Your task to perform on an android device: turn off sleep mode Image 0: 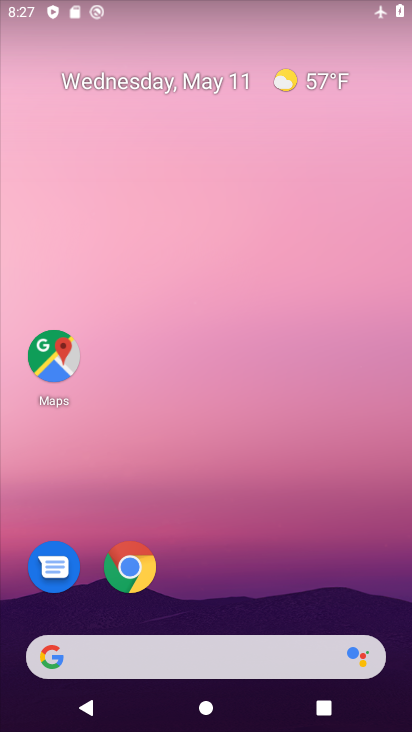
Step 0: click (51, 352)
Your task to perform on an android device: turn off sleep mode Image 1: 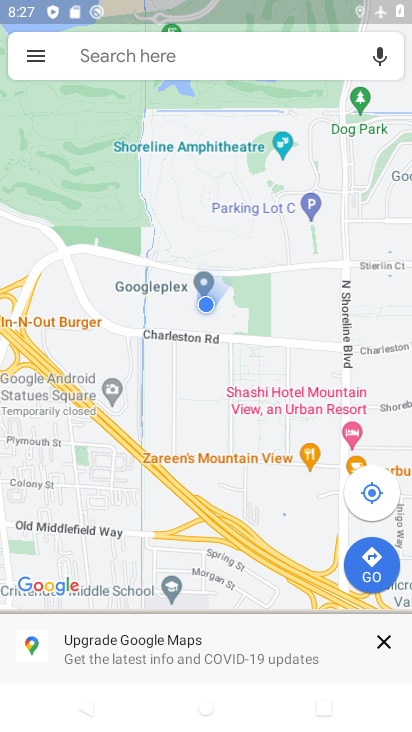
Step 1: press home button
Your task to perform on an android device: turn off sleep mode Image 2: 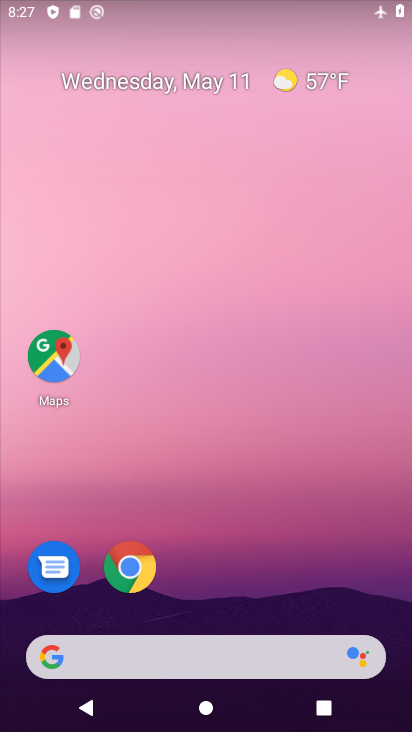
Step 2: drag from (270, 527) to (220, 110)
Your task to perform on an android device: turn off sleep mode Image 3: 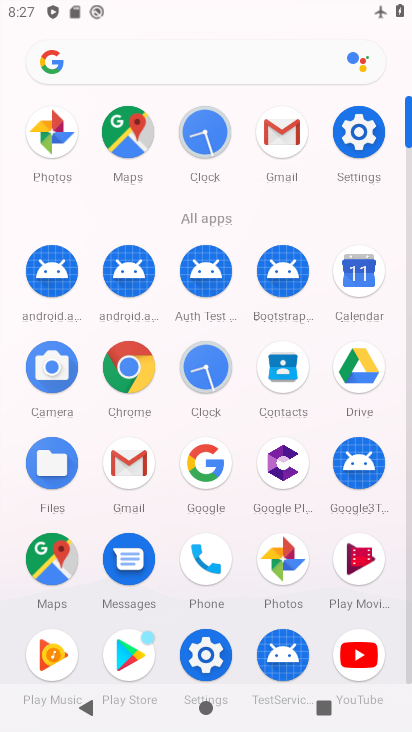
Step 3: click (353, 140)
Your task to perform on an android device: turn off sleep mode Image 4: 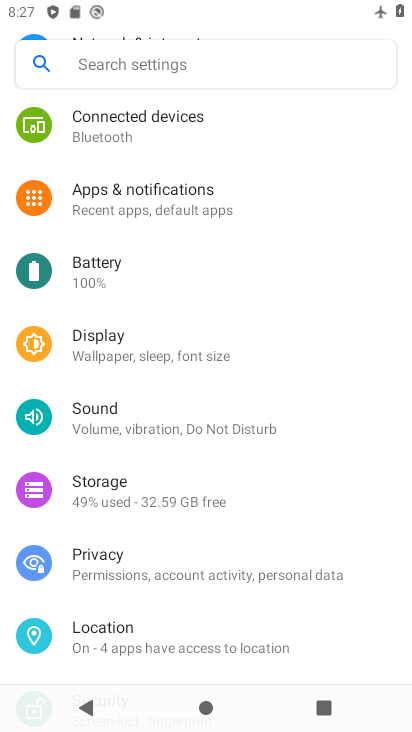
Step 4: click (162, 333)
Your task to perform on an android device: turn off sleep mode Image 5: 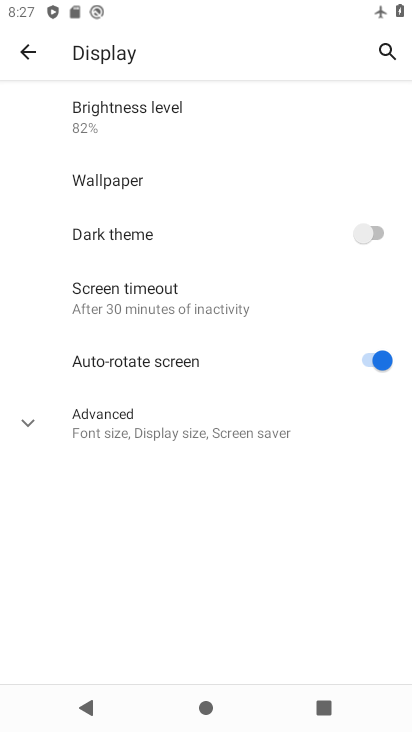
Step 5: task complete